Your task to perform on an android device: turn off location history Image 0: 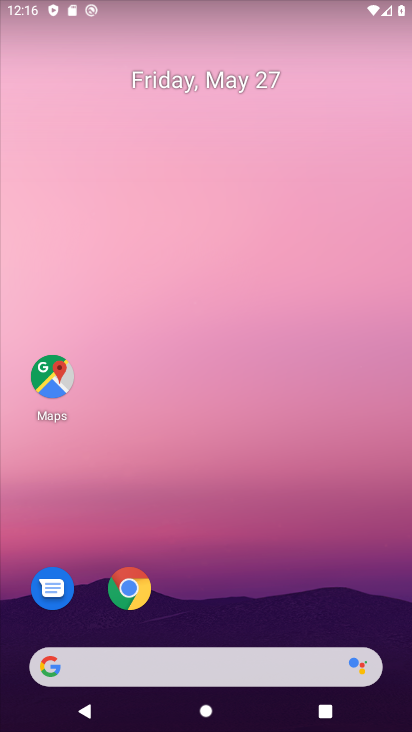
Step 0: drag from (213, 574) to (242, 31)
Your task to perform on an android device: turn off location history Image 1: 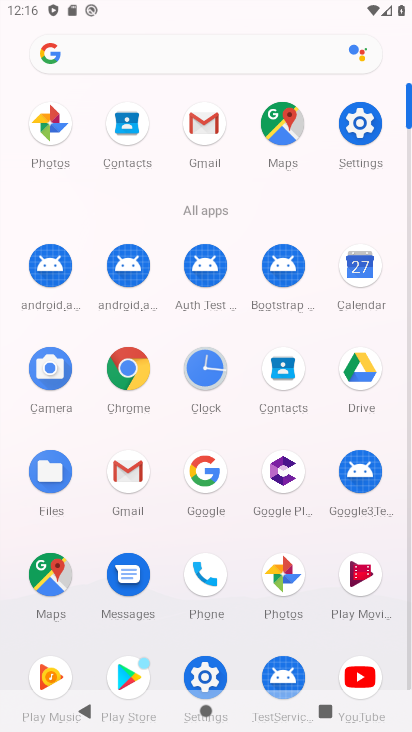
Step 1: click (359, 118)
Your task to perform on an android device: turn off location history Image 2: 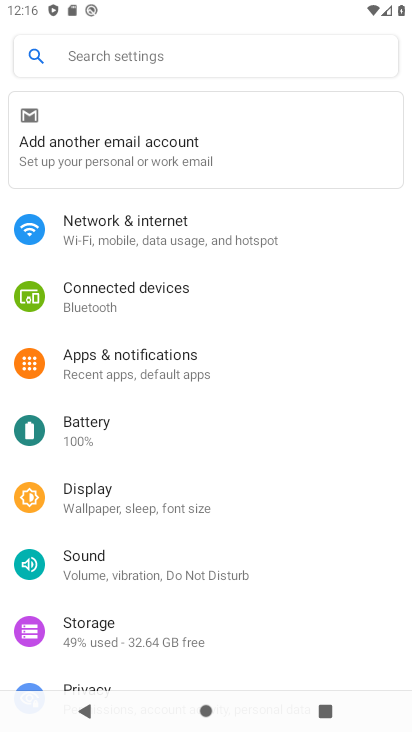
Step 2: drag from (151, 621) to (193, 166)
Your task to perform on an android device: turn off location history Image 3: 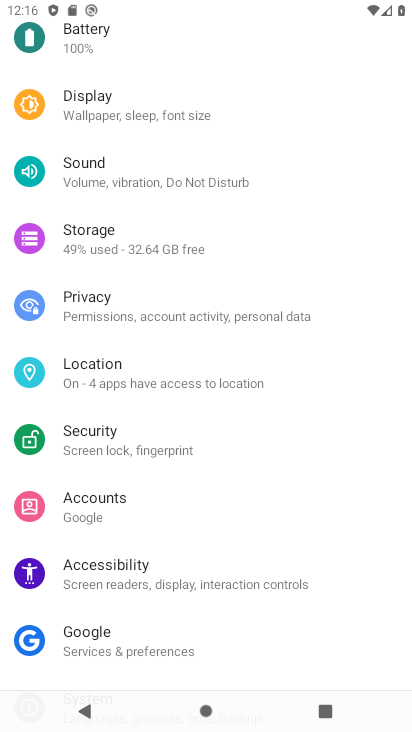
Step 3: click (139, 364)
Your task to perform on an android device: turn off location history Image 4: 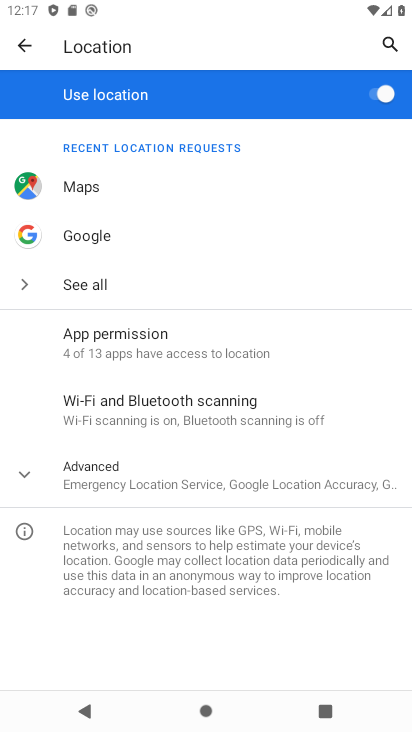
Step 4: click (21, 466)
Your task to perform on an android device: turn off location history Image 5: 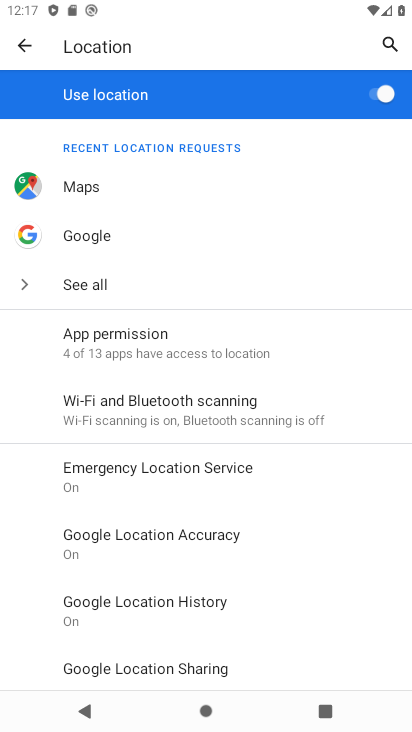
Step 5: click (244, 602)
Your task to perform on an android device: turn off location history Image 6: 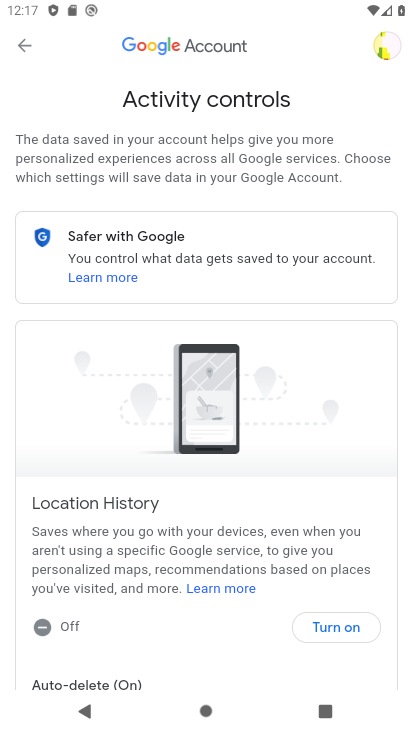
Step 6: task complete